Your task to perform on an android device: open app "DuckDuckGo Privacy Browser" Image 0: 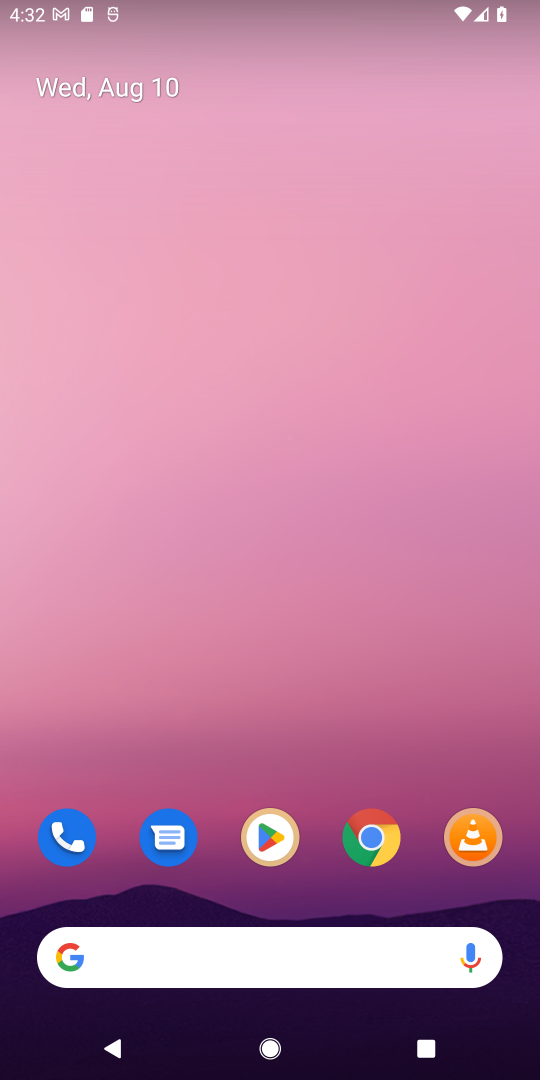
Step 0: click (276, 832)
Your task to perform on an android device: open app "DuckDuckGo Privacy Browser" Image 1: 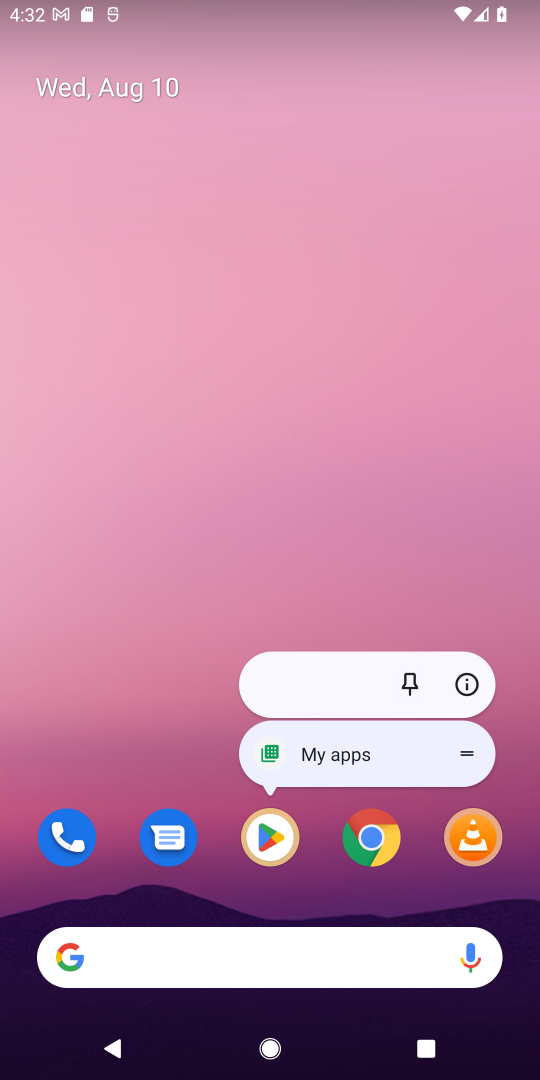
Step 1: click (275, 835)
Your task to perform on an android device: open app "DuckDuckGo Privacy Browser" Image 2: 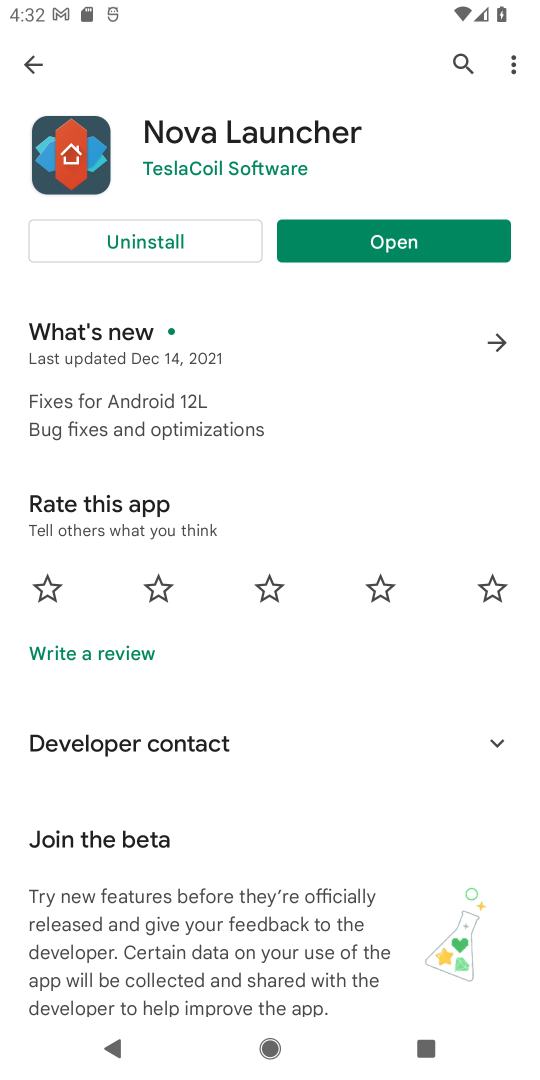
Step 2: click (458, 52)
Your task to perform on an android device: open app "DuckDuckGo Privacy Browser" Image 3: 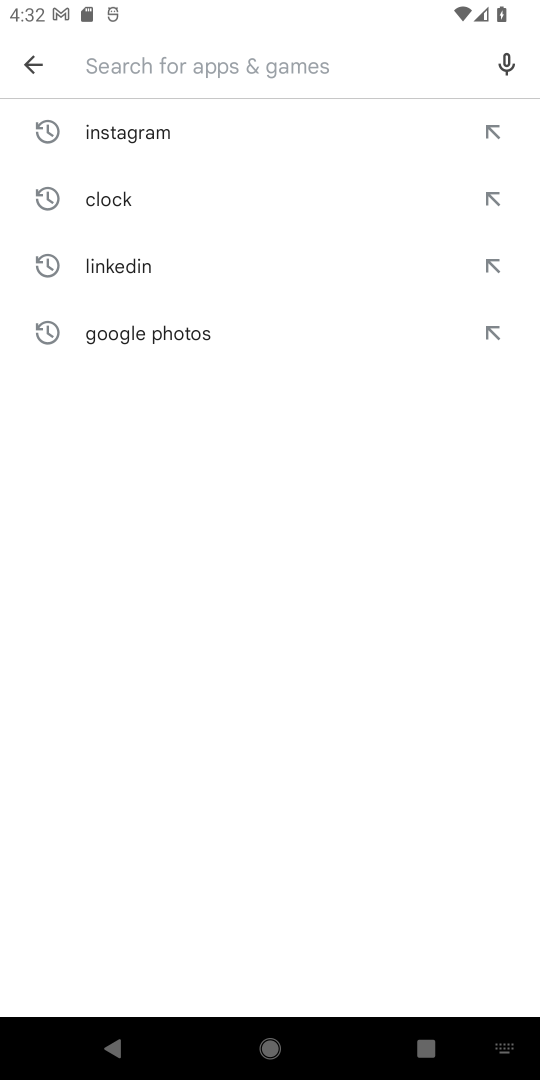
Step 3: type "DuckDuckGo Privacy Browser"
Your task to perform on an android device: open app "DuckDuckGo Privacy Browser" Image 4: 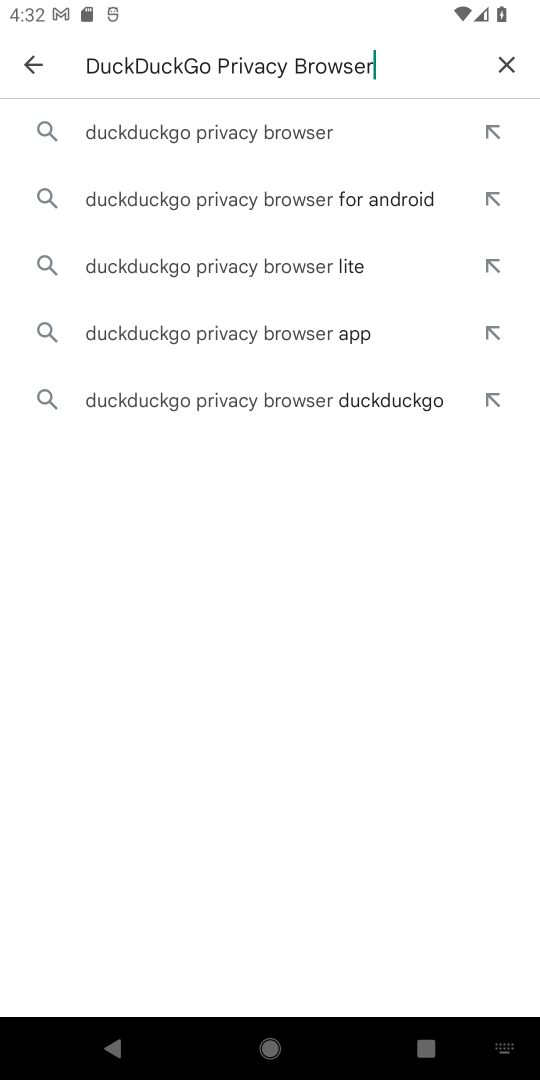
Step 4: click (229, 126)
Your task to perform on an android device: open app "DuckDuckGo Privacy Browser" Image 5: 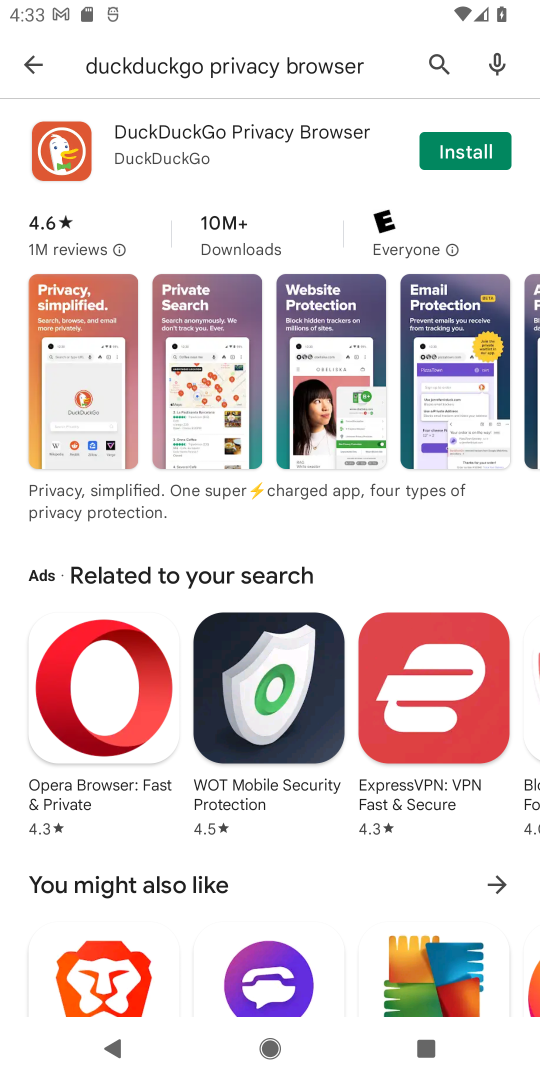
Step 5: task complete